Your task to perform on an android device: Open Android settings Image 0: 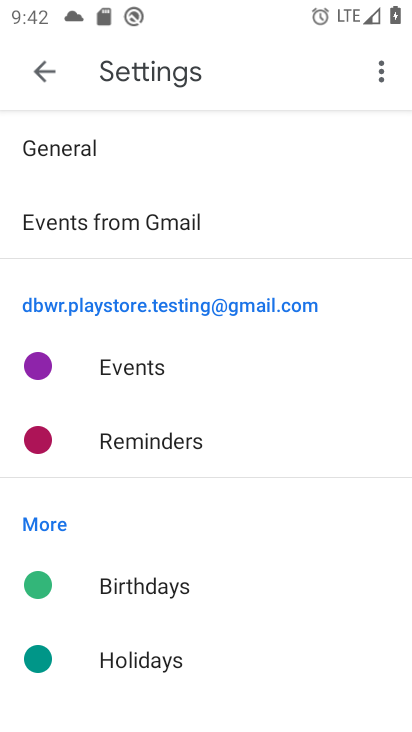
Step 0: press home button
Your task to perform on an android device: Open Android settings Image 1: 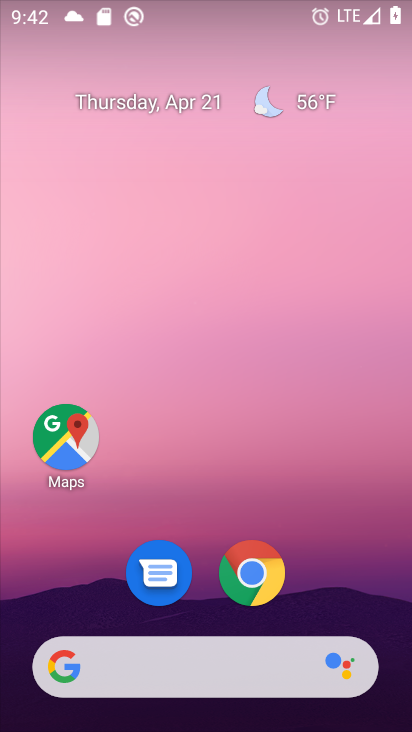
Step 1: drag from (204, 487) to (264, 72)
Your task to perform on an android device: Open Android settings Image 2: 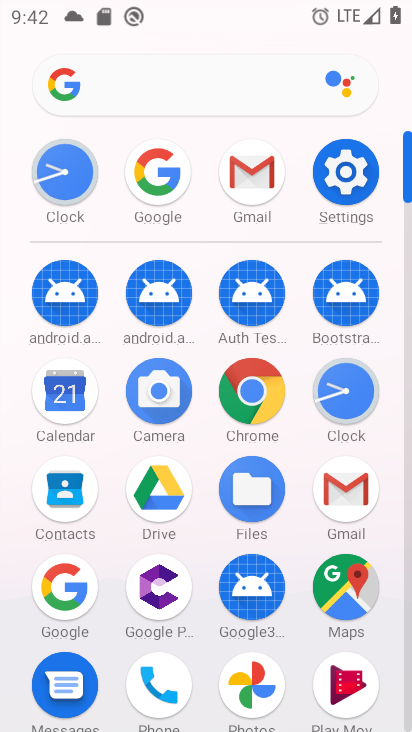
Step 2: click (347, 170)
Your task to perform on an android device: Open Android settings Image 3: 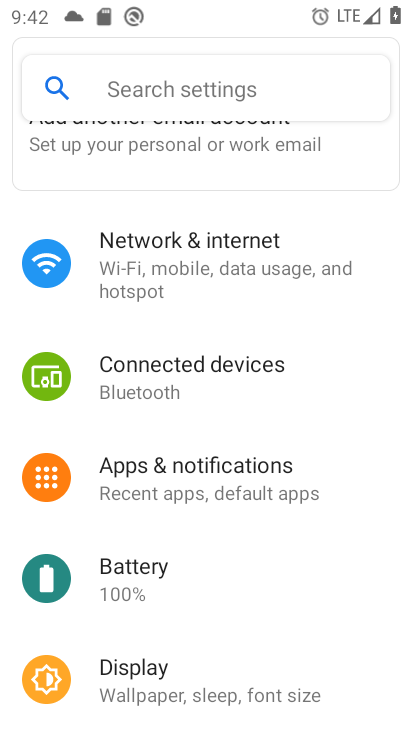
Step 3: task complete